Your task to perform on an android device: Find coffee shops on Maps Image 0: 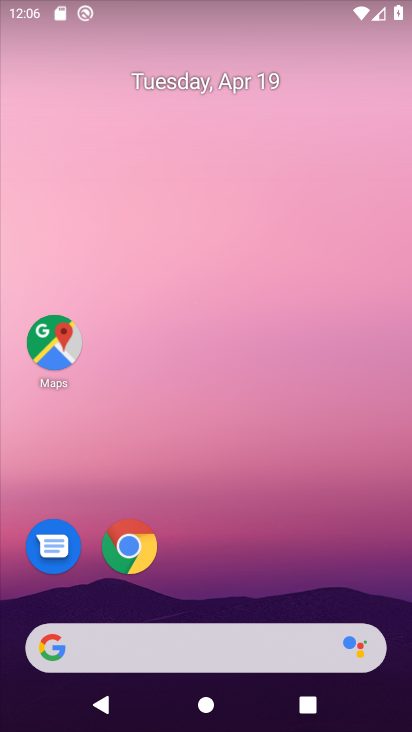
Step 0: drag from (220, 595) to (238, 67)
Your task to perform on an android device: Find coffee shops on Maps Image 1: 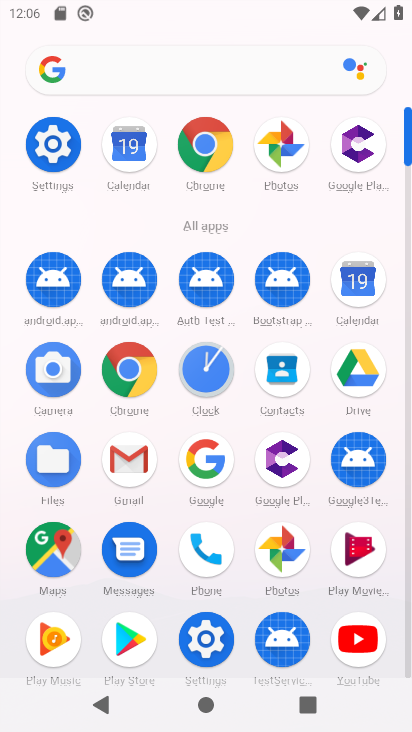
Step 1: click (51, 543)
Your task to perform on an android device: Find coffee shops on Maps Image 2: 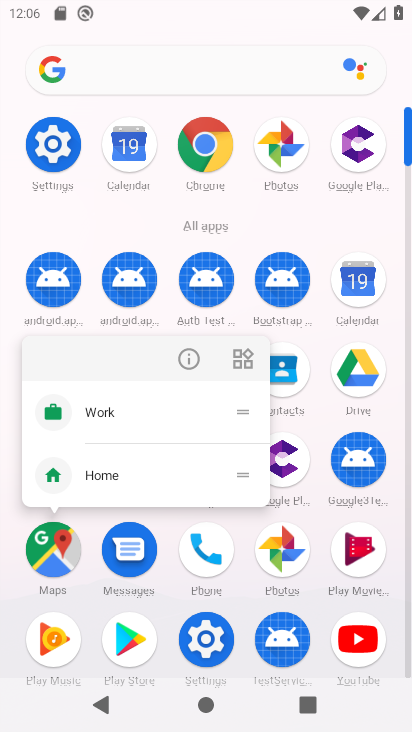
Step 2: click (49, 550)
Your task to perform on an android device: Find coffee shops on Maps Image 3: 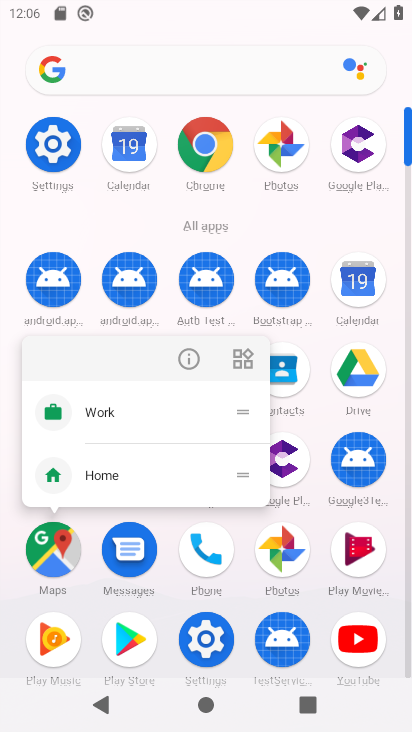
Step 3: click (49, 550)
Your task to perform on an android device: Find coffee shops on Maps Image 4: 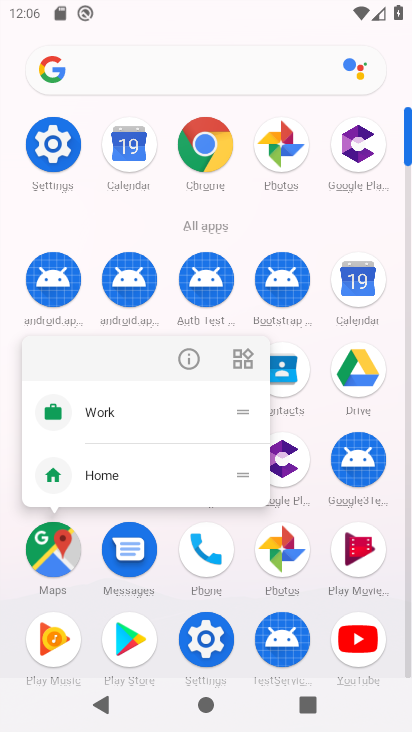
Step 4: click (52, 548)
Your task to perform on an android device: Find coffee shops on Maps Image 5: 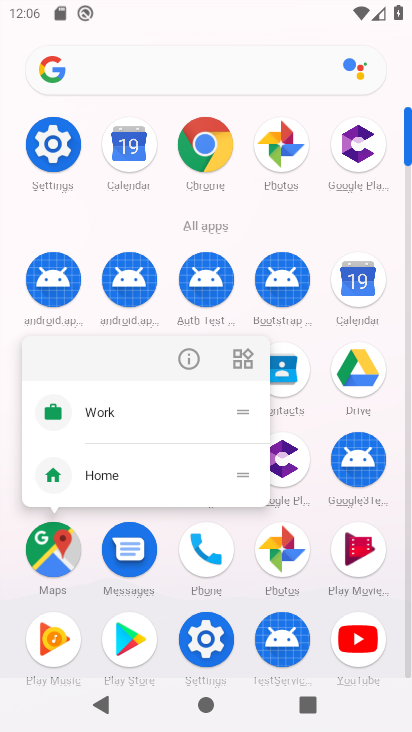
Step 5: click (162, 2)
Your task to perform on an android device: Find coffee shops on Maps Image 6: 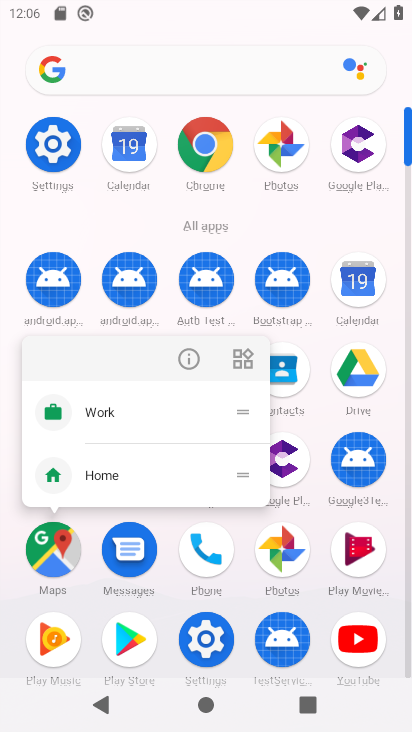
Step 6: click (46, 546)
Your task to perform on an android device: Find coffee shops on Maps Image 7: 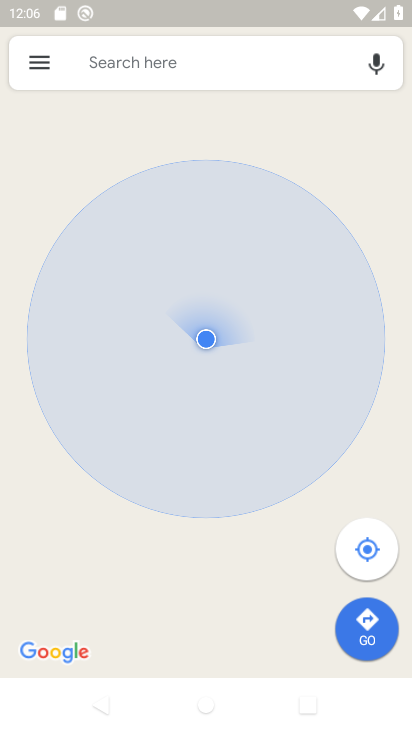
Step 7: click (160, 46)
Your task to perform on an android device: Find coffee shops on Maps Image 8: 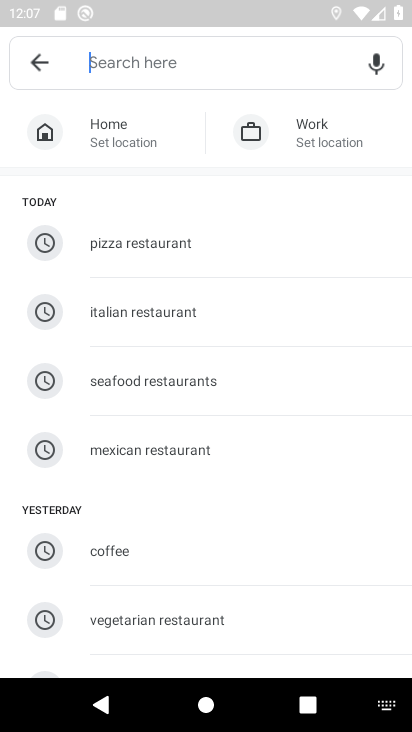
Step 8: type "c"
Your task to perform on an android device: Find coffee shops on Maps Image 9: 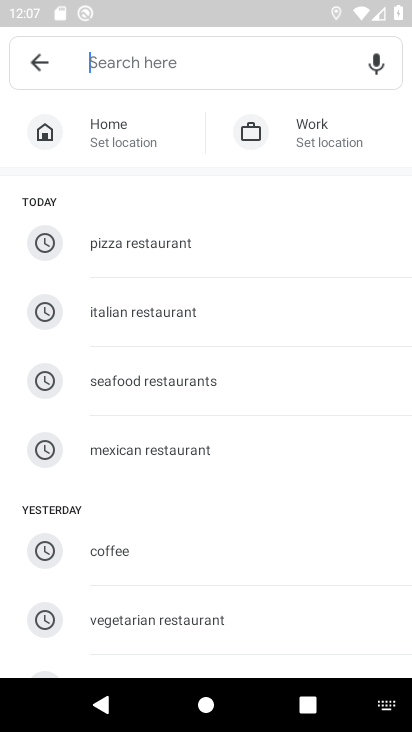
Step 9: click (127, 557)
Your task to perform on an android device: Find coffee shops on Maps Image 10: 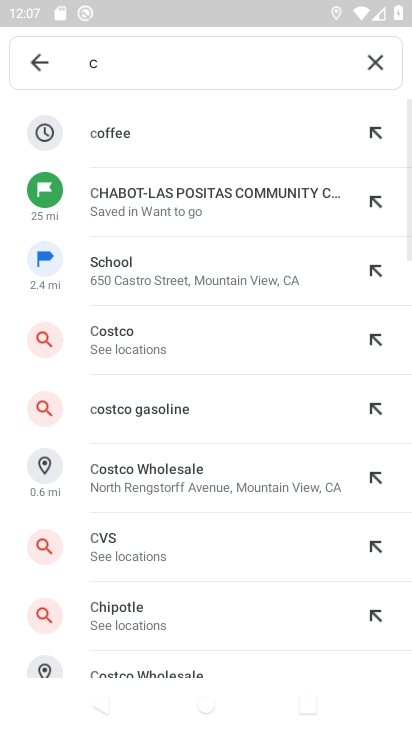
Step 10: click (121, 134)
Your task to perform on an android device: Find coffee shops on Maps Image 11: 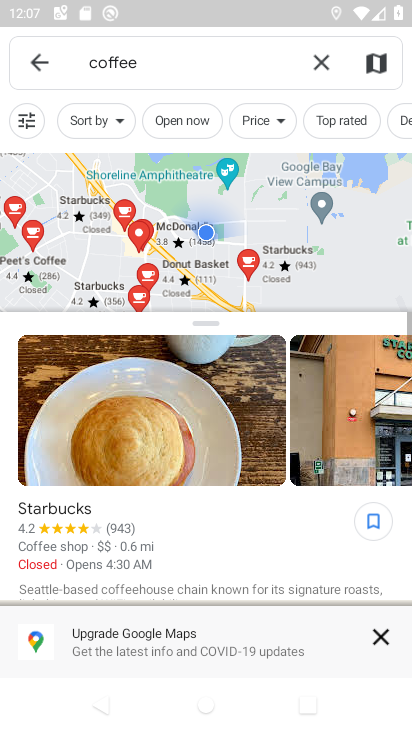
Step 11: task complete